Your task to perform on an android device: Open Chrome and go to the settings page Image 0: 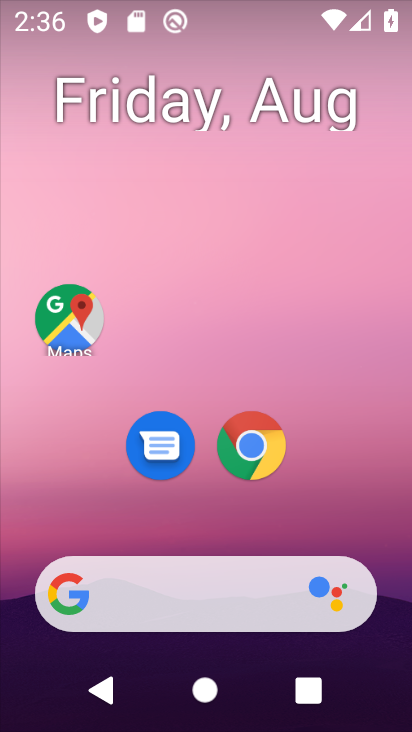
Step 0: drag from (352, 477) to (320, 90)
Your task to perform on an android device: Open Chrome and go to the settings page Image 1: 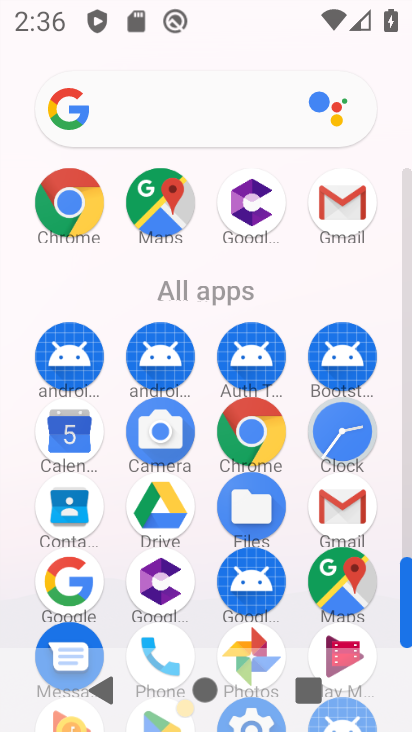
Step 1: click (251, 429)
Your task to perform on an android device: Open Chrome and go to the settings page Image 2: 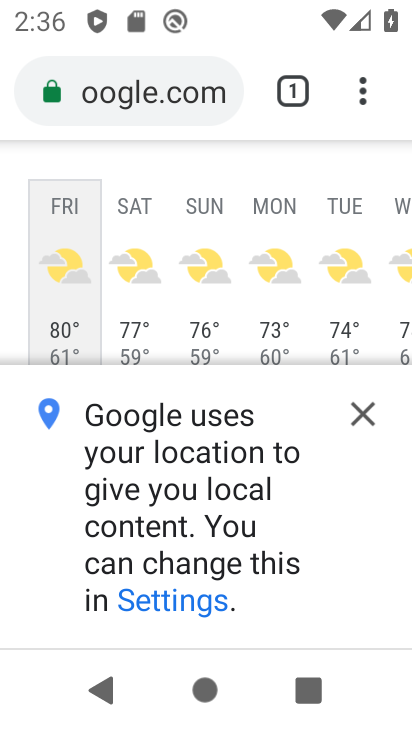
Step 2: task complete